Your task to perform on an android device: Open Google Maps and go to "Timeline" Image 0: 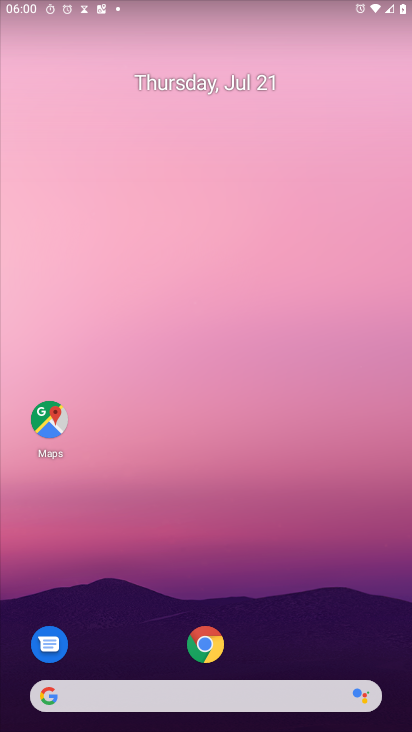
Step 0: press home button
Your task to perform on an android device: Open Google Maps and go to "Timeline" Image 1: 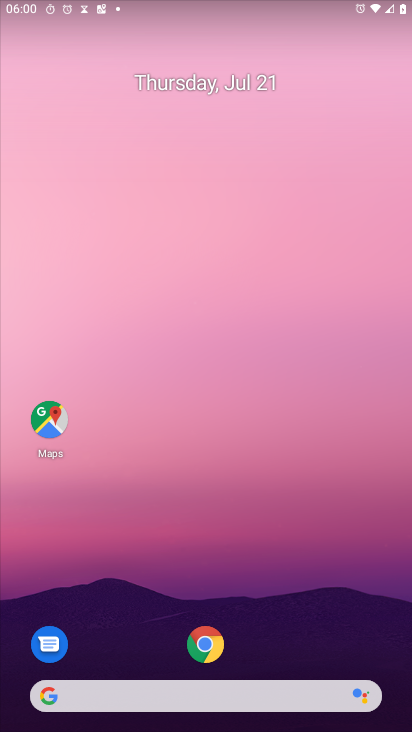
Step 1: click (48, 416)
Your task to perform on an android device: Open Google Maps and go to "Timeline" Image 2: 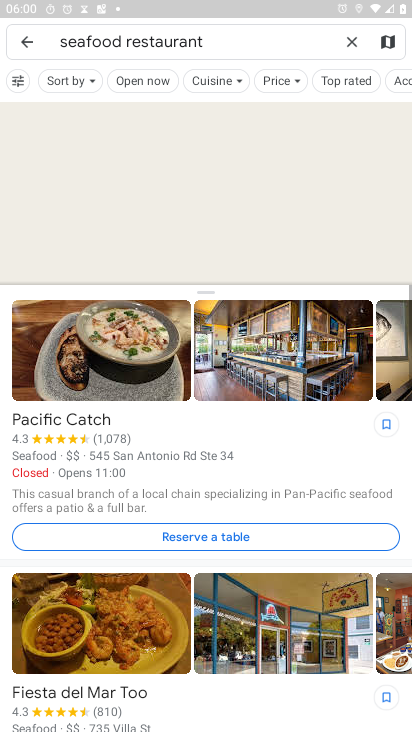
Step 2: click (21, 35)
Your task to perform on an android device: Open Google Maps and go to "Timeline" Image 3: 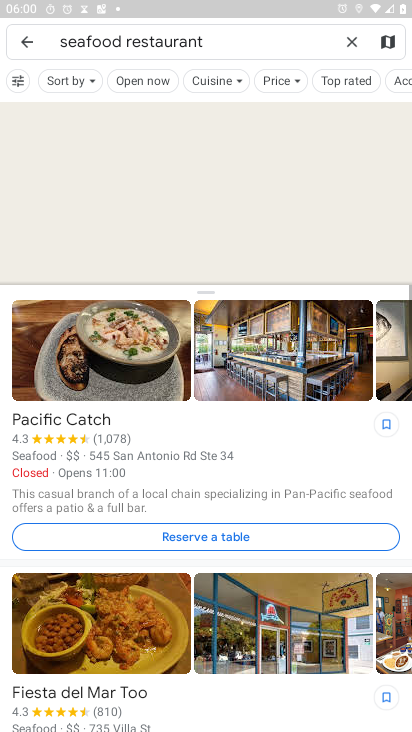
Step 3: click (29, 41)
Your task to perform on an android device: Open Google Maps and go to "Timeline" Image 4: 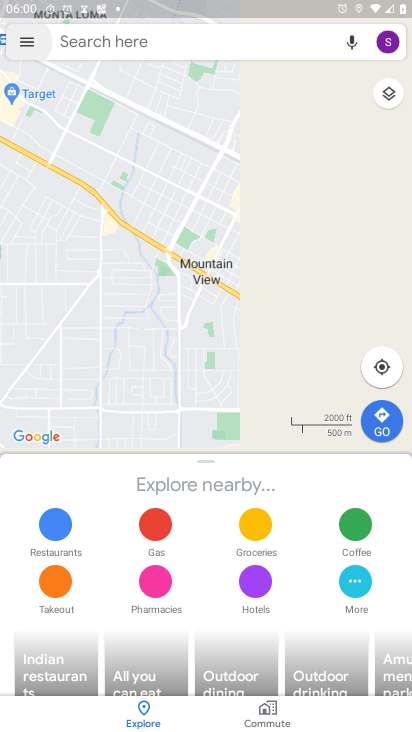
Step 4: click (23, 40)
Your task to perform on an android device: Open Google Maps and go to "Timeline" Image 5: 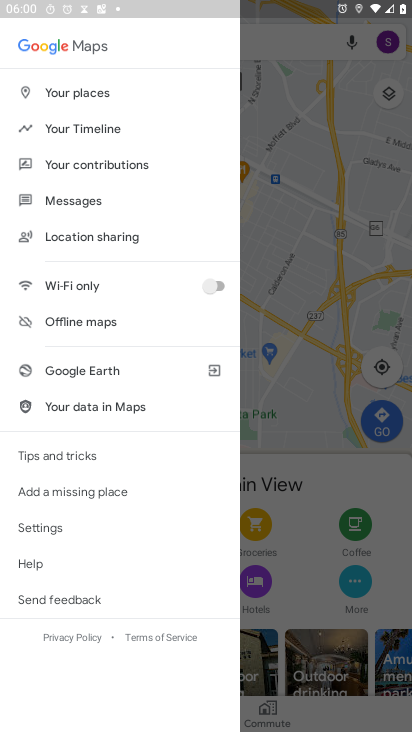
Step 5: click (70, 132)
Your task to perform on an android device: Open Google Maps and go to "Timeline" Image 6: 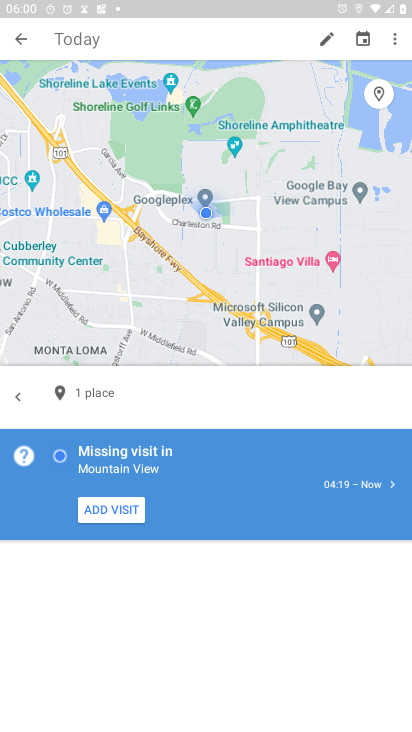
Step 6: task complete